Your task to perform on an android device: install app "Cash App" Image 0: 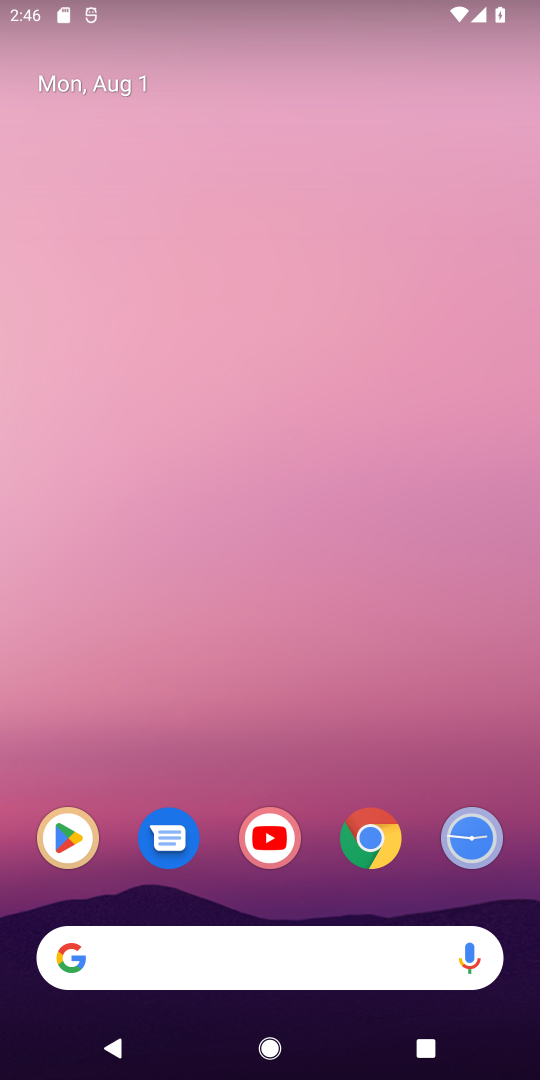
Step 0: click (79, 820)
Your task to perform on an android device: install app "Cash App" Image 1: 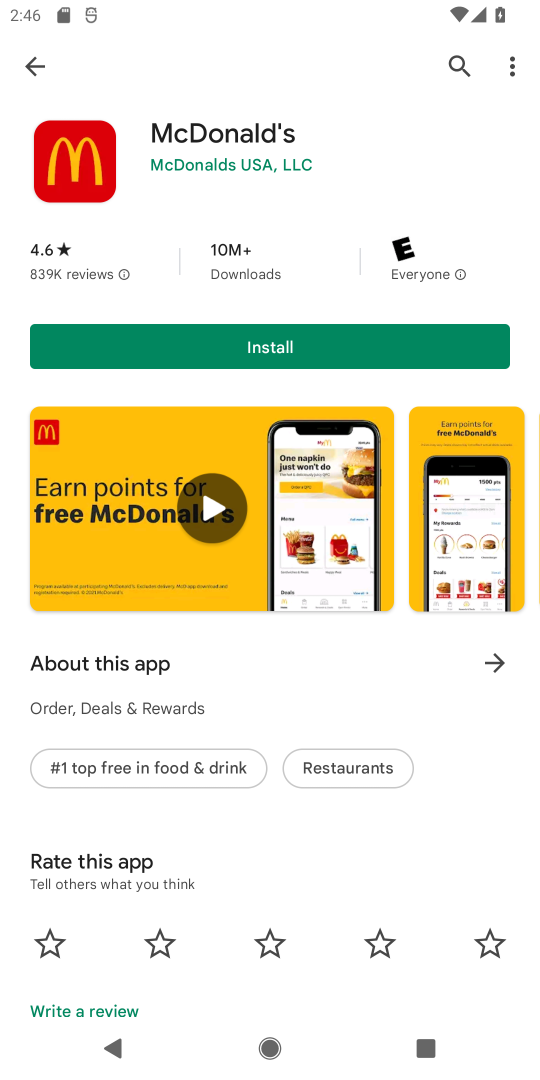
Step 1: click (450, 68)
Your task to perform on an android device: install app "Cash App" Image 2: 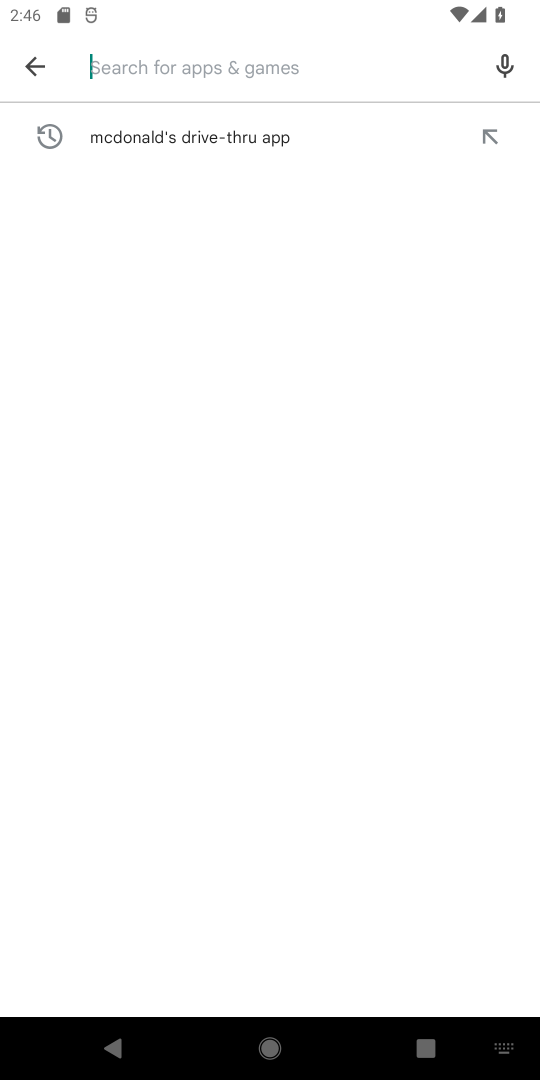
Step 2: type "Cash App"
Your task to perform on an android device: install app "Cash App" Image 3: 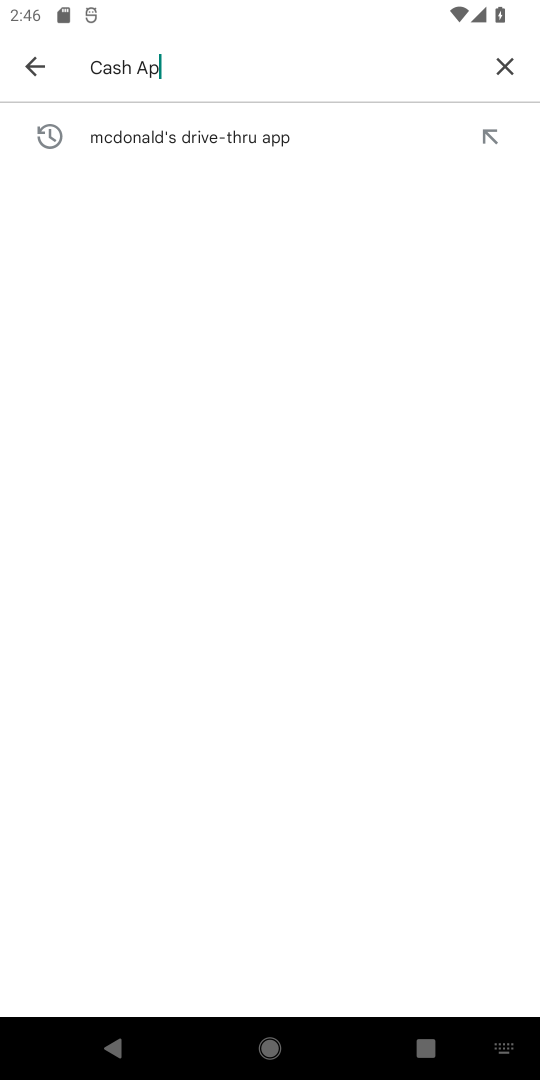
Step 3: type ""
Your task to perform on an android device: install app "Cash App" Image 4: 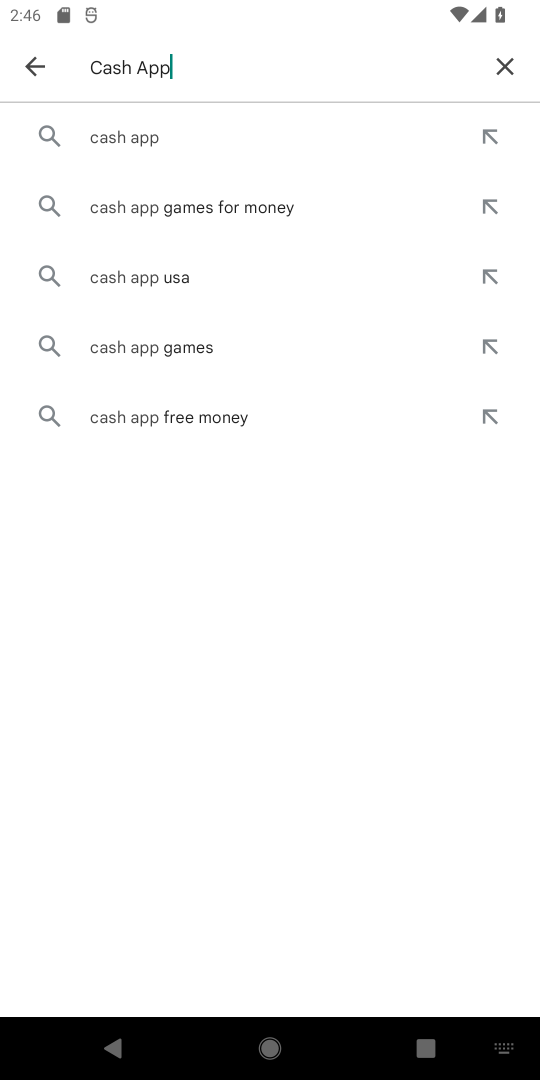
Step 4: click (258, 144)
Your task to perform on an android device: install app "Cash App" Image 5: 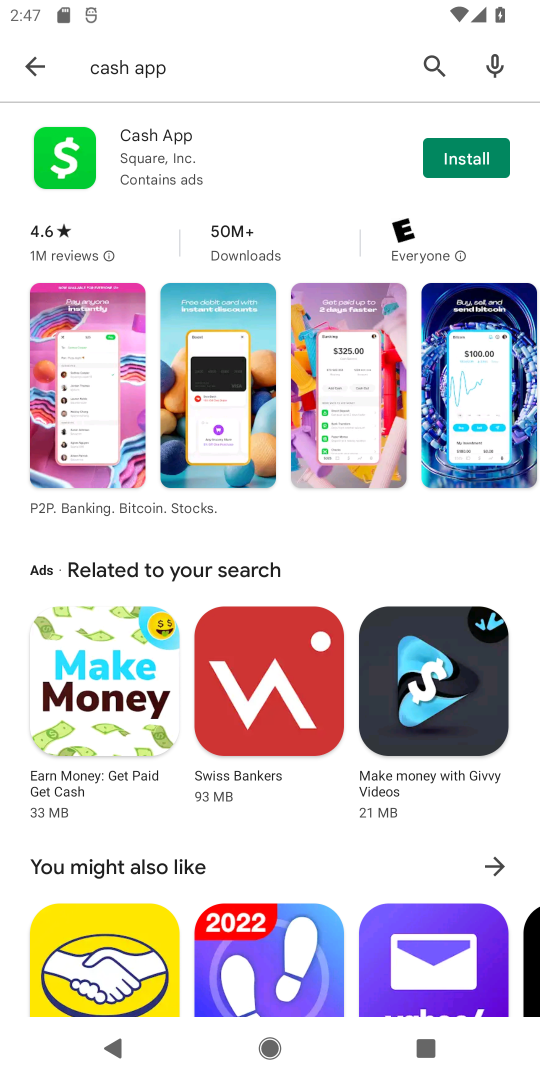
Step 5: click (497, 167)
Your task to perform on an android device: install app "Cash App" Image 6: 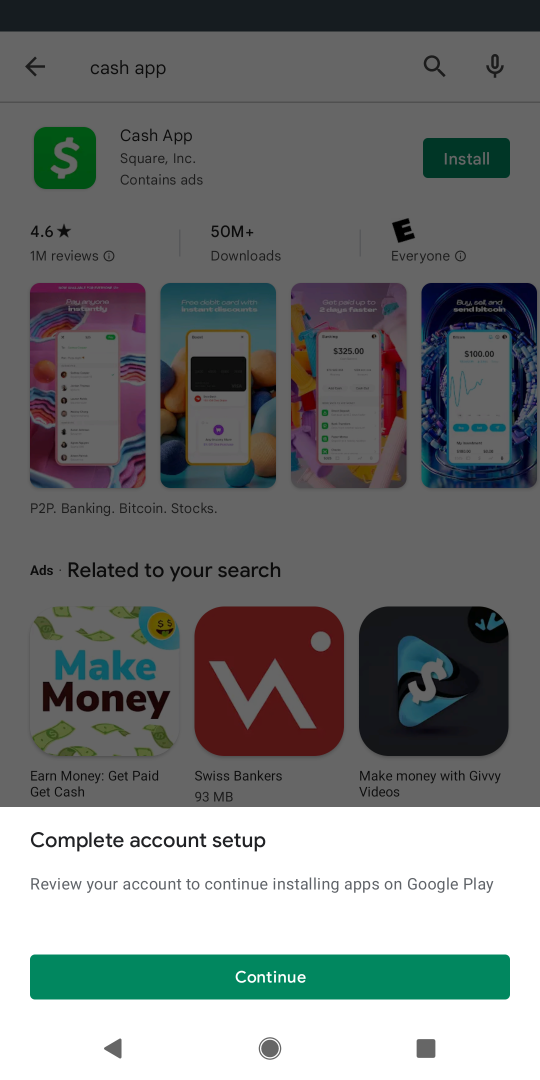
Step 6: click (408, 989)
Your task to perform on an android device: install app "Cash App" Image 7: 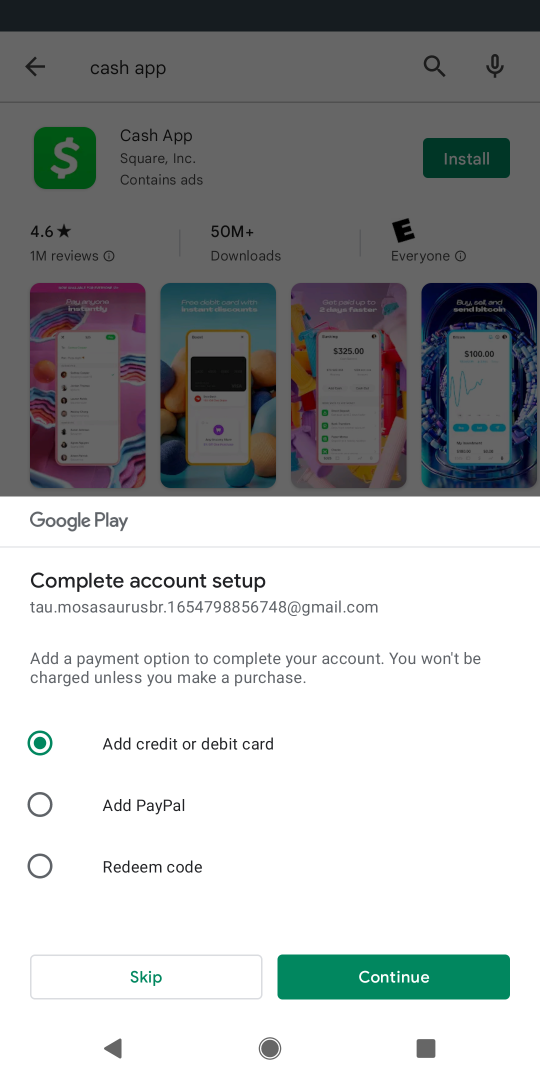
Step 7: click (174, 980)
Your task to perform on an android device: install app "Cash App" Image 8: 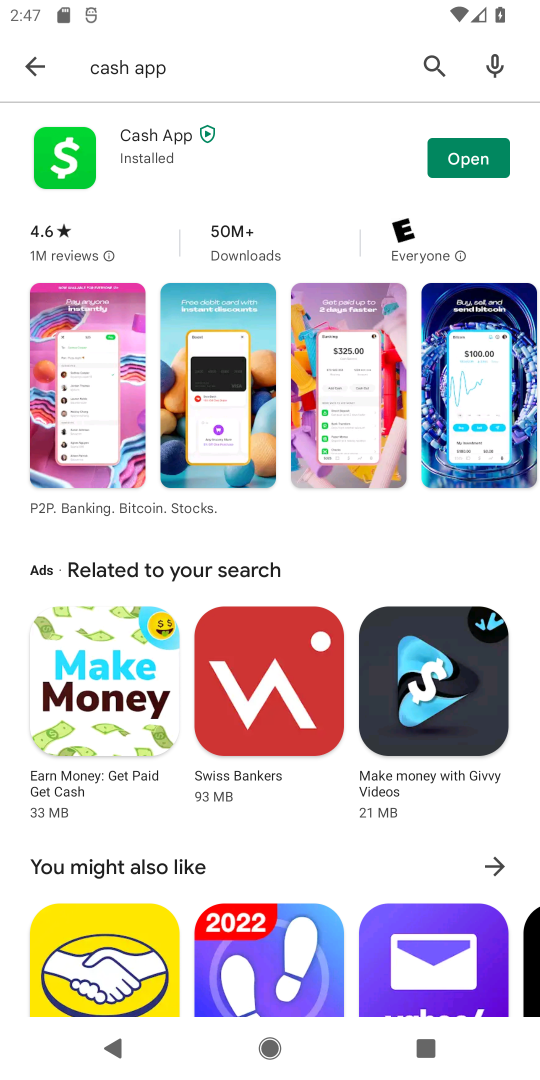
Step 8: task complete